Your task to perform on an android device: Open the map Image 0: 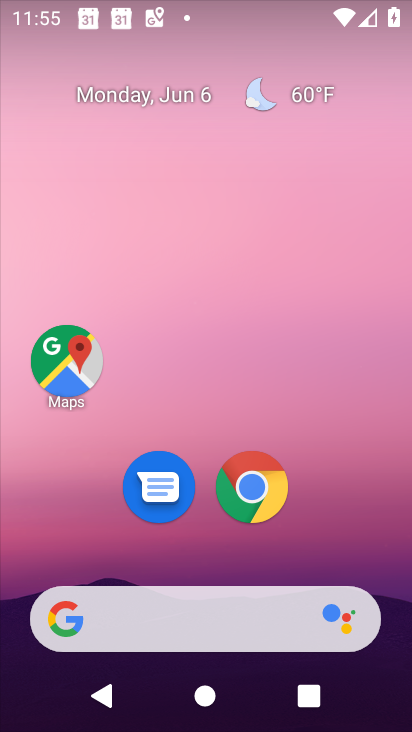
Step 0: click (84, 361)
Your task to perform on an android device: Open the map Image 1: 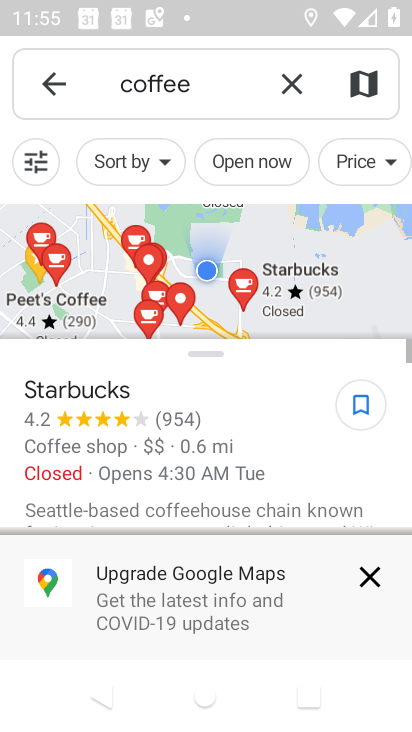
Step 1: task complete